Your task to perform on an android device: Open settings Image 0: 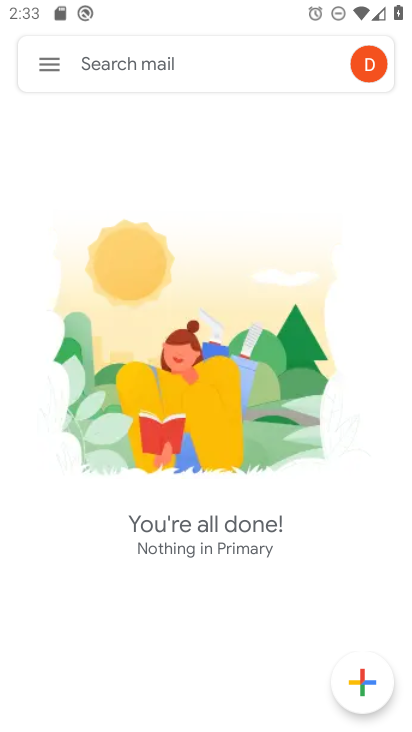
Step 0: press home button
Your task to perform on an android device: Open settings Image 1: 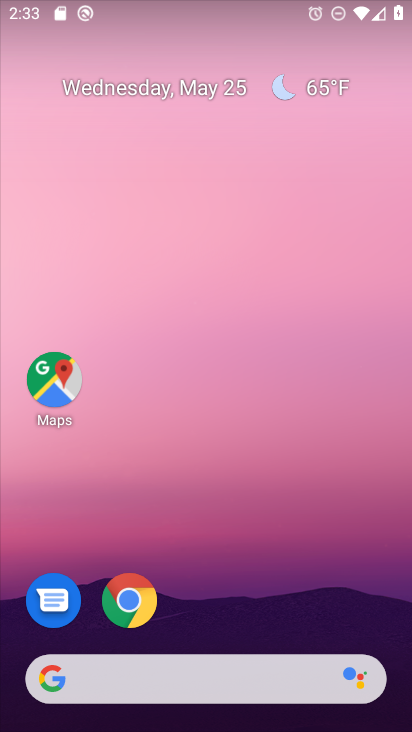
Step 1: drag from (297, 545) to (231, 64)
Your task to perform on an android device: Open settings Image 2: 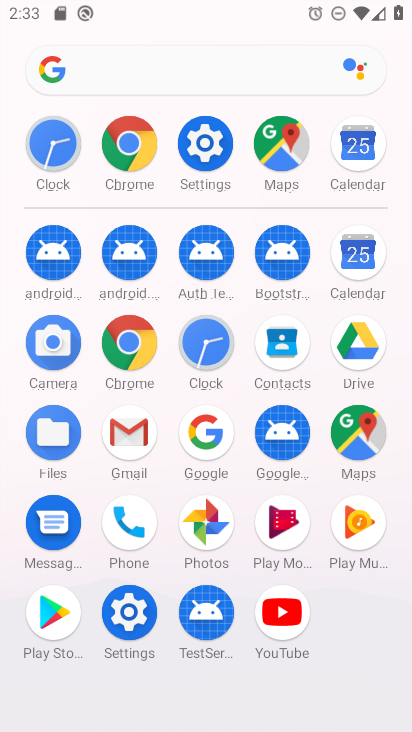
Step 2: click (214, 153)
Your task to perform on an android device: Open settings Image 3: 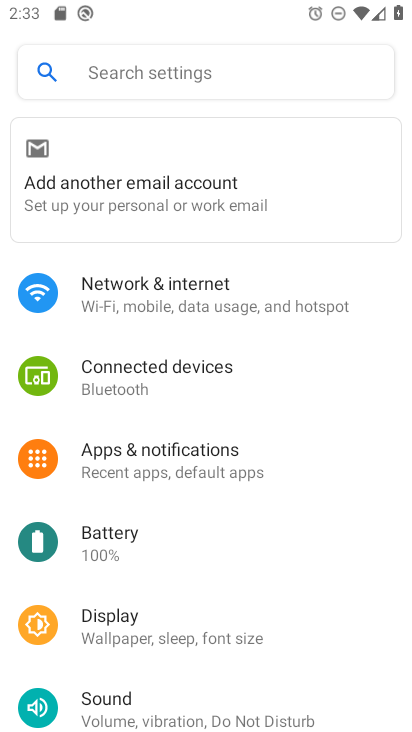
Step 3: task complete